Your task to perform on an android device: turn on priority inbox in the gmail app Image 0: 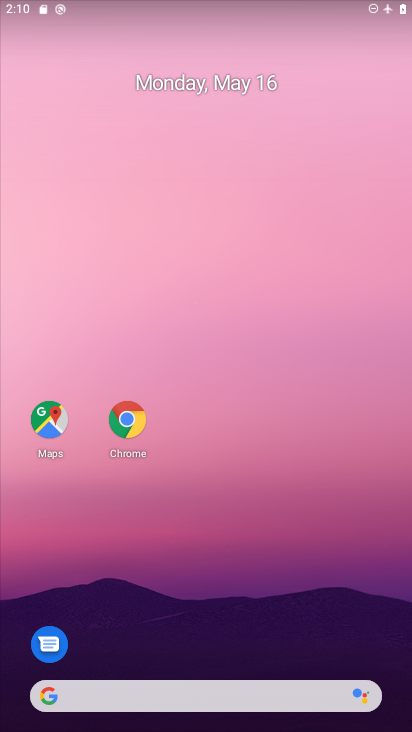
Step 0: drag from (206, 613) to (246, 26)
Your task to perform on an android device: turn on priority inbox in the gmail app Image 1: 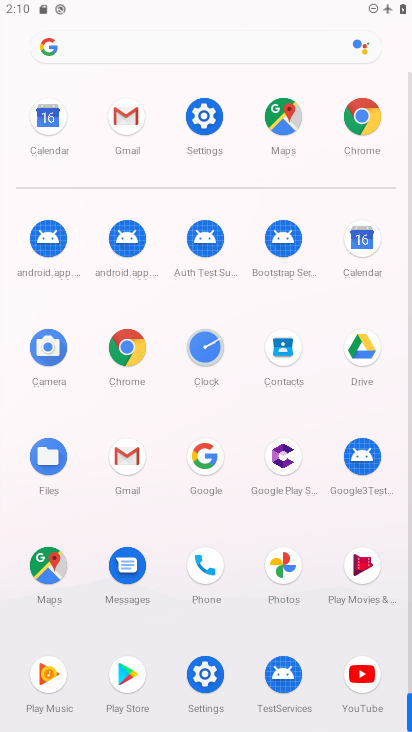
Step 1: click (126, 467)
Your task to perform on an android device: turn on priority inbox in the gmail app Image 2: 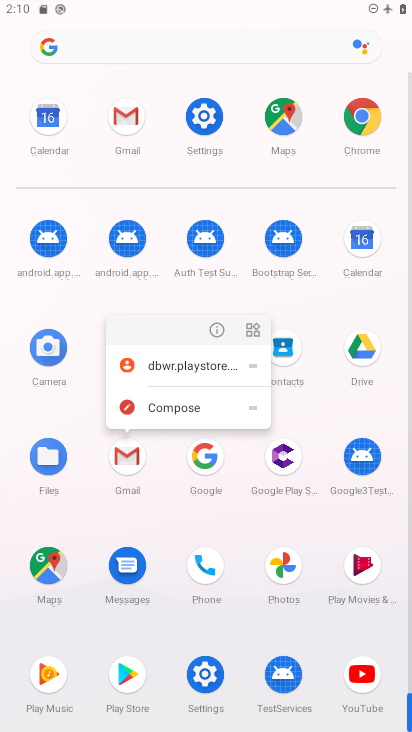
Step 2: click (177, 389)
Your task to perform on an android device: turn on priority inbox in the gmail app Image 3: 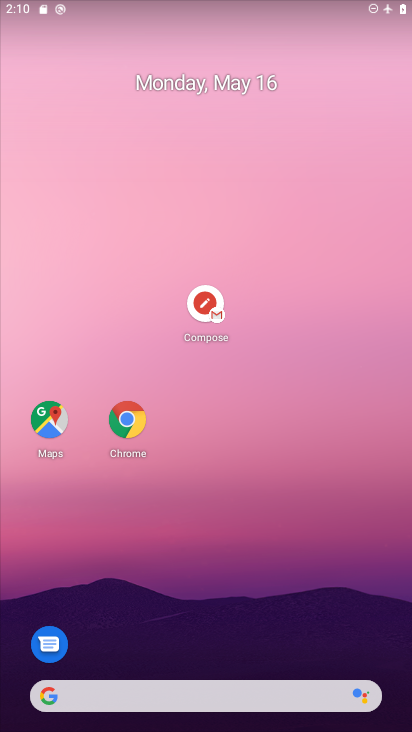
Step 3: drag from (192, 330) to (180, 64)
Your task to perform on an android device: turn on priority inbox in the gmail app Image 4: 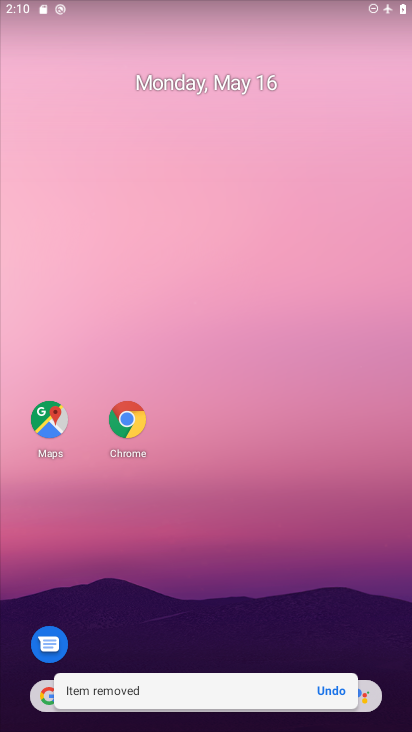
Step 4: drag from (192, 639) to (286, 57)
Your task to perform on an android device: turn on priority inbox in the gmail app Image 5: 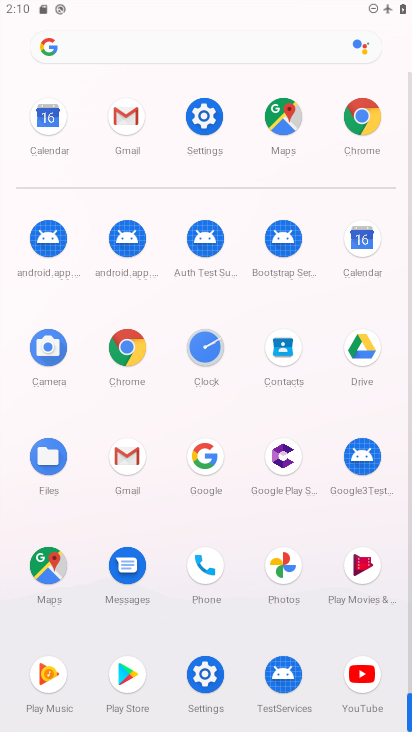
Step 5: click (137, 453)
Your task to perform on an android device: turn on priority inbox in the gmail app Image 6: 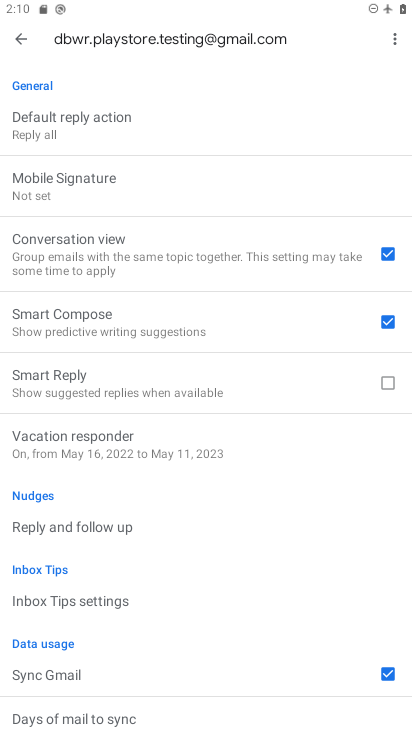
Step 6: click (15, 41)
Your task to perform on an android device: turn on priority inbox in the gmail app Image 7: 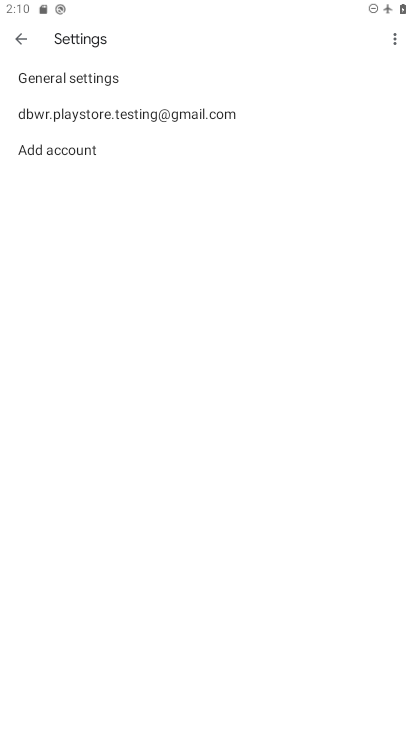
Step 7: click (92, 115)
Your task to perform on an android device: turn on priority inbox in the gmail app Image 8: 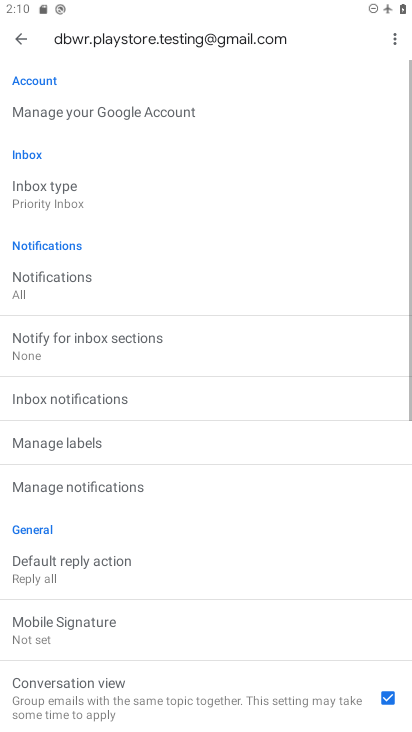
Step 8: click (62, 199)
Your task to perform on an android device: turn on priority inbox in the gmail app Image 9: 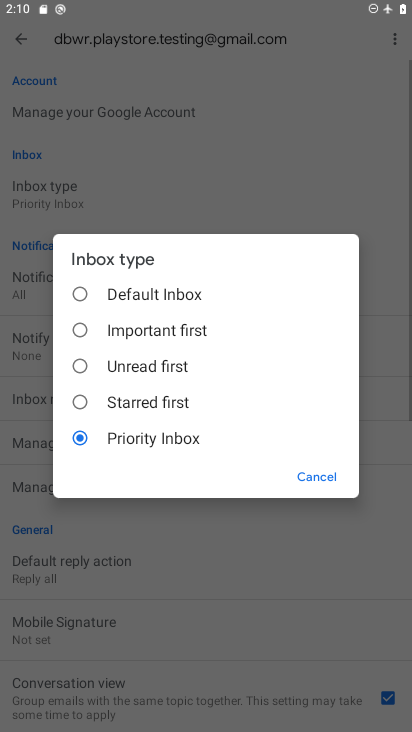
Step 9: click (148, 436)
Your task to perform on an android device: turn on priority inbox in the gmail app Image 10: 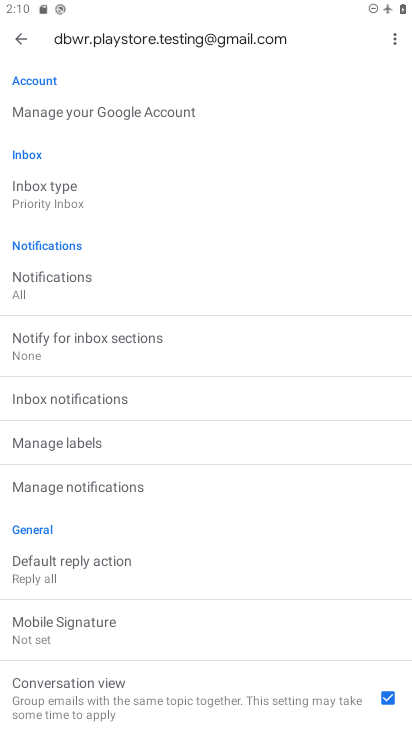
Step 10: task complete